Your task to perform on an android device: turn off airplane mode Image 0: 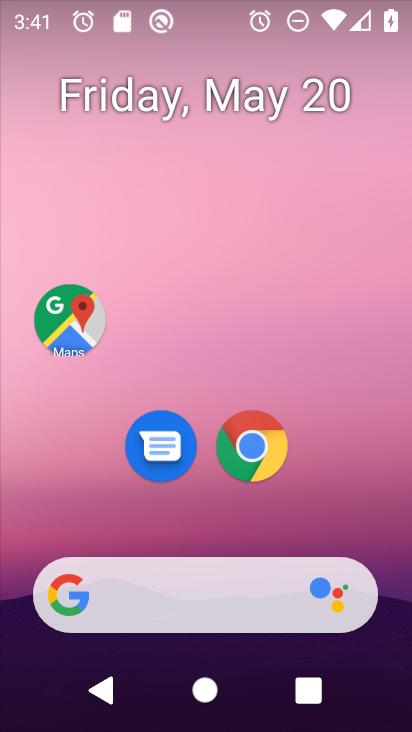
Step 0: drag from (381, 556) to (374, 18)
Your task to perform on an android device: turn off airplane mode Image 1: 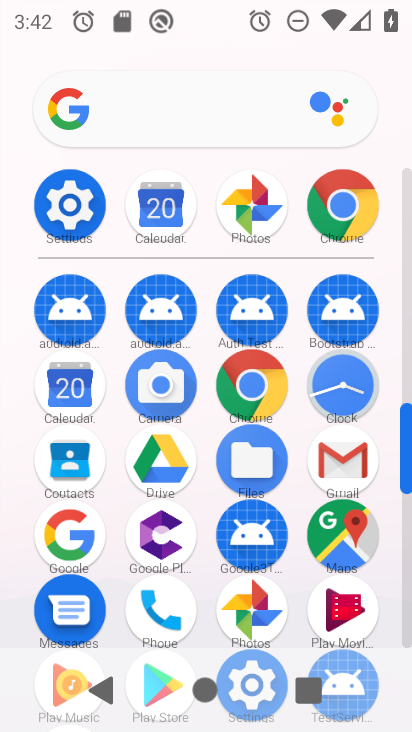
Step 1: click (72, 208)
Your task to perform on an android device: turn off airplane mode Image 2: 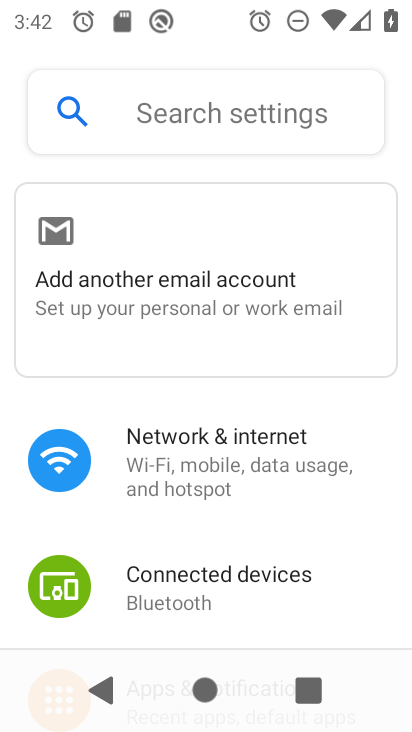
Step 2: click (214, 460)
Your task to perform on an android device: turn off airplane mode Image 3: 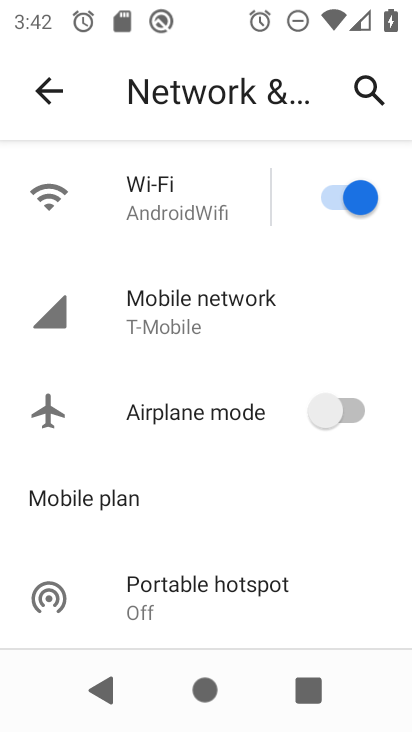
Step 3: task complete